Your task to perform on an android device: toggle wifi Image 0: 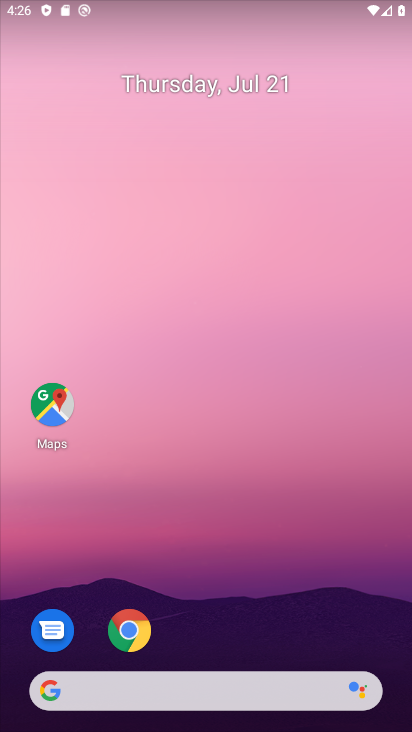
Step 0: drag from (279, 639) to (226, 236)
Your task to perform on an android device: toggle wifi Image 1: 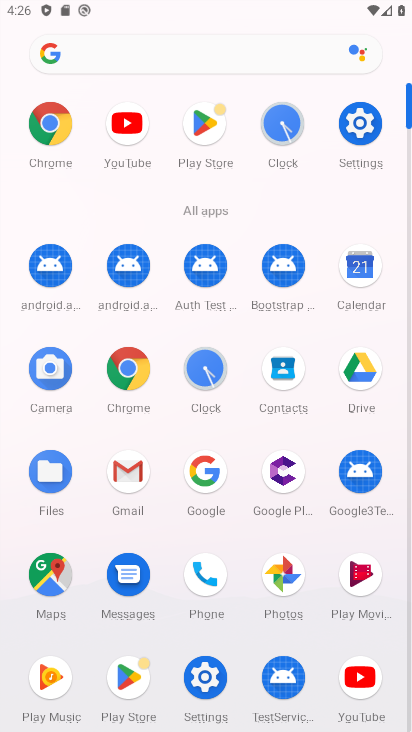
Step 1: click (358, 131)
Your task to perform on an android device: toggle wifi Image 2: 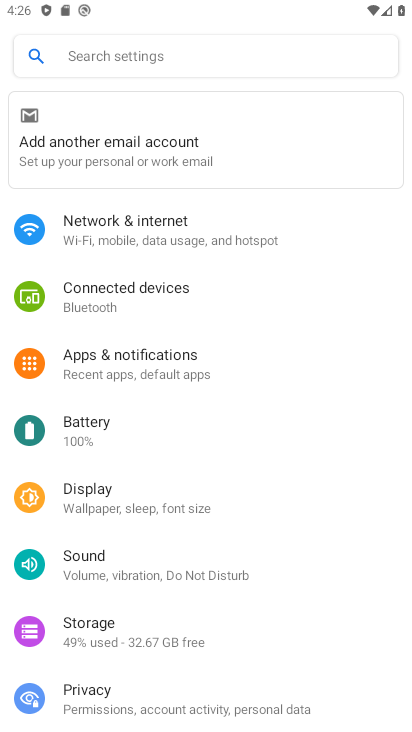
Step 2: drag from (272, 134) to (276, 36)
Your task to perform on an android device: toggle wifi Image 3: 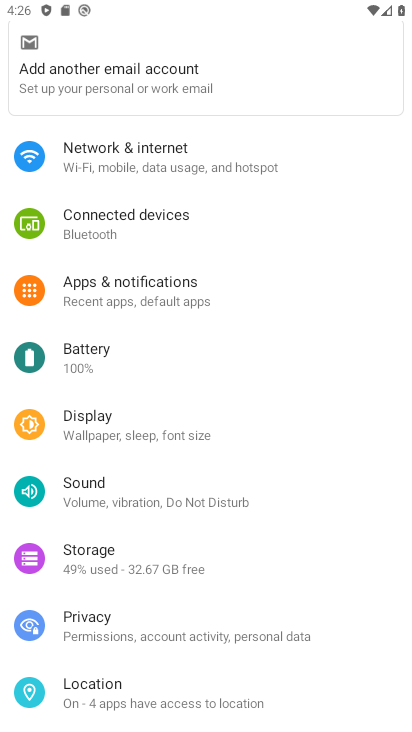
Step 3: click (278, 173)
Your task to perform on an android device: toggle wifi Image 4: 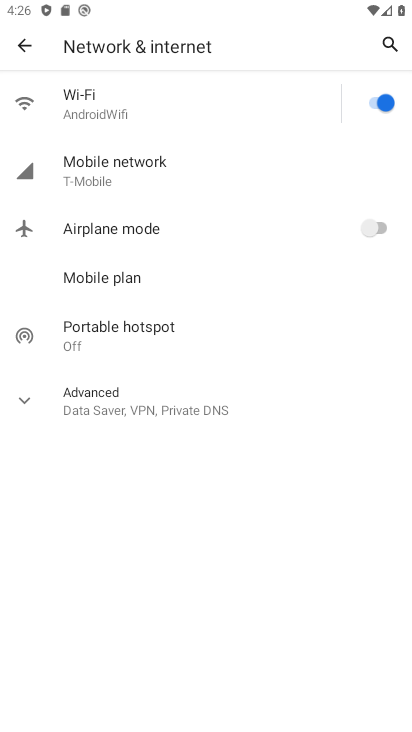
Step 4: click (378, 111)
Your task to perform on an android device: toggle wifi Image 5: 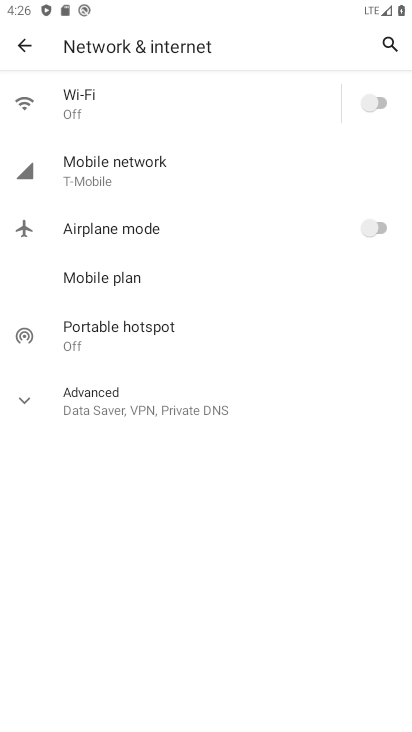
Step 5: task complete